Your task to perform on an android device: Open internet settings Image 0: 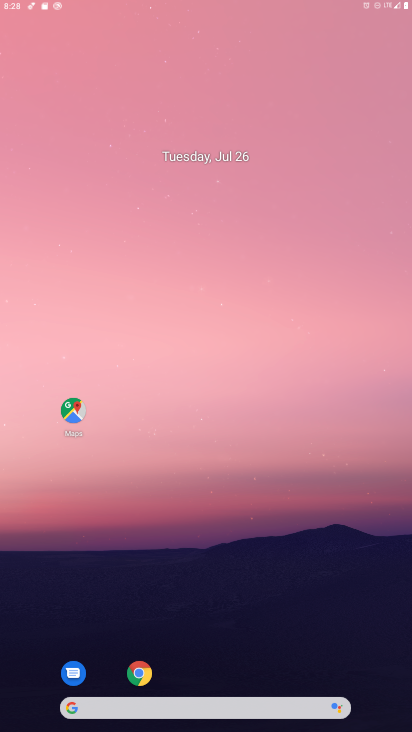
Step 0: drag from (282, 523) to (150, 55)
Your task to perform on an android device: Open internet settings Image 1: 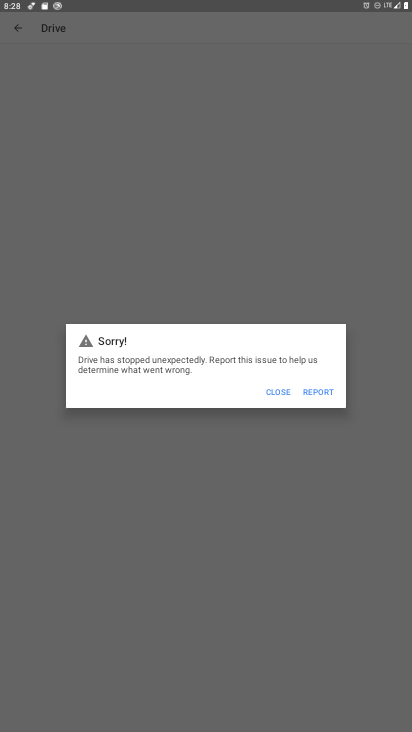
Step 1: press home button
Your task to perform on an android device: Open internet settings Image 2: 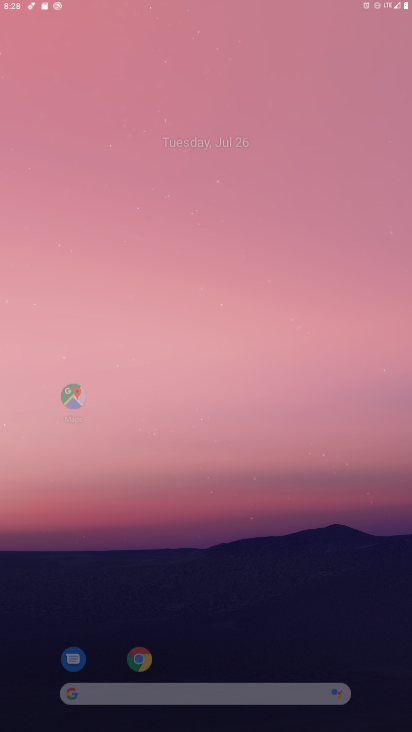
Step 2: drag from (352, 724) to (209, 18)
Your task to perform on an android device: Open internet settings Image 3: 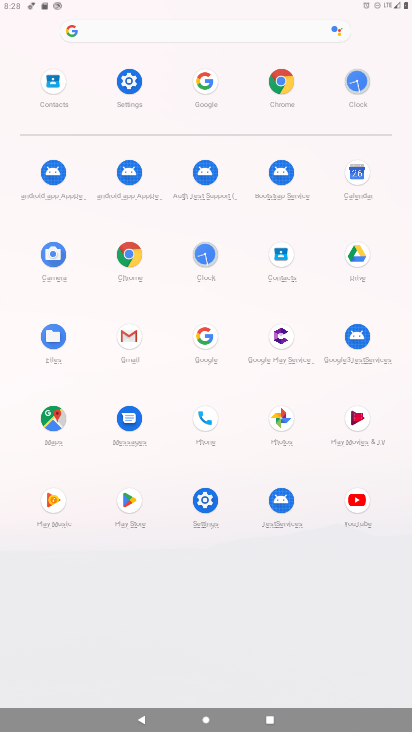
Step 3: click (209, 509)
Your task to perform on an android device: Open internet settings Image 4: 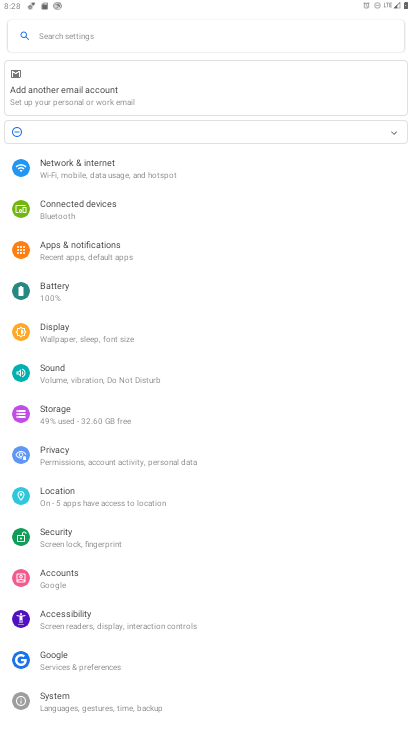
Step 4: click (84, 171)
Your task to perform on an android device: Open internet settings Image 5: 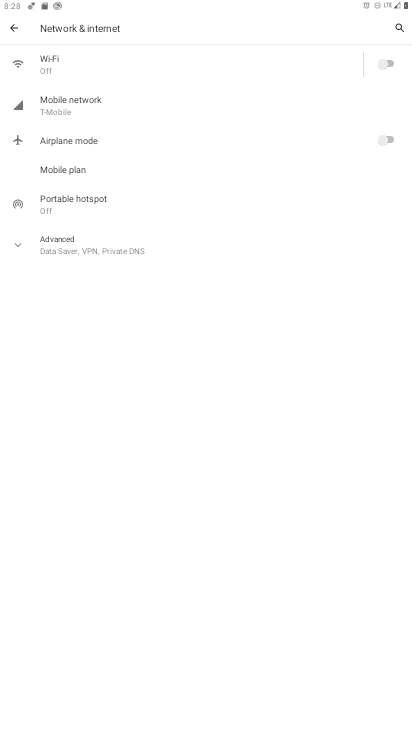
Step 5: task complete